Your task to perform on an android device: Open Google Image 0: 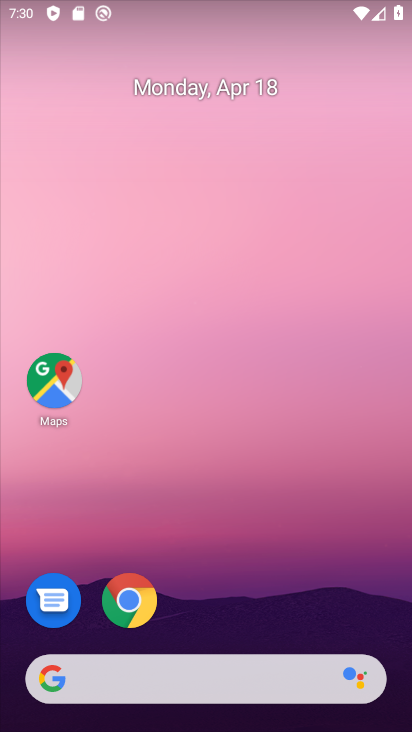
Step 0: drag from (199, 649) to (171, 45)
Your task to perform on an android device: Open Google Image 1: 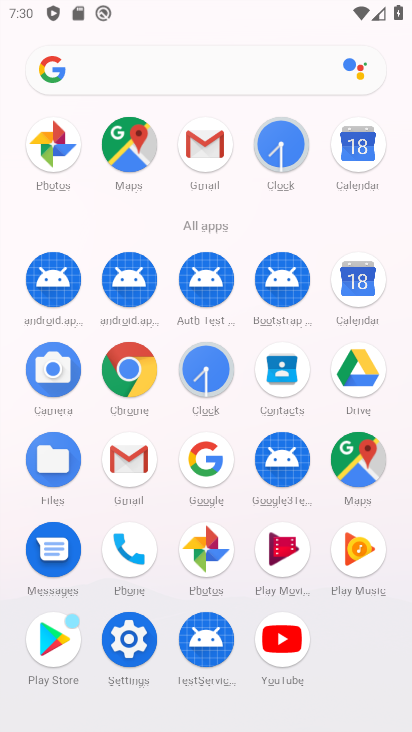
Step 1: click (209, 456)
Your task to perform on an android device: Open Google Image 2: 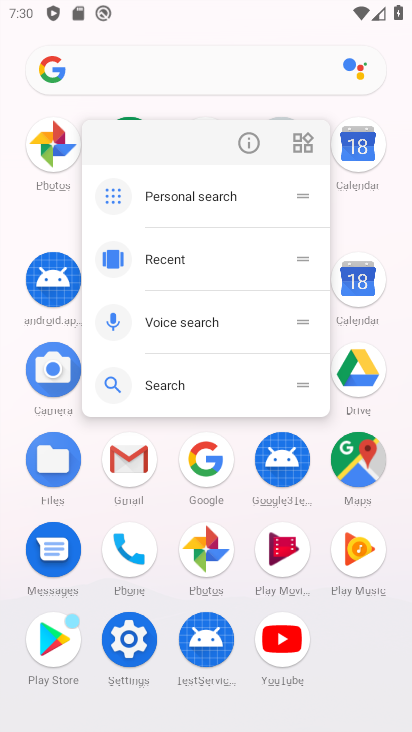
Step 2: click (209, 456)
Your task to perform on an android device: Open Google Image 3: 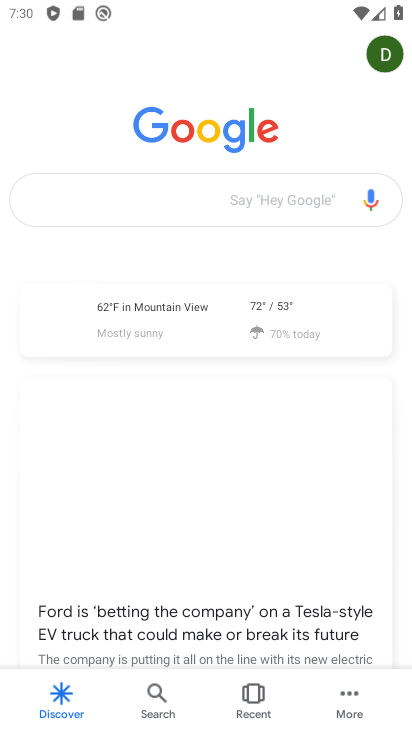
Step 3: task complete